Your task to perform on an android device: turn on showing notifications on the lock screen Image 0: 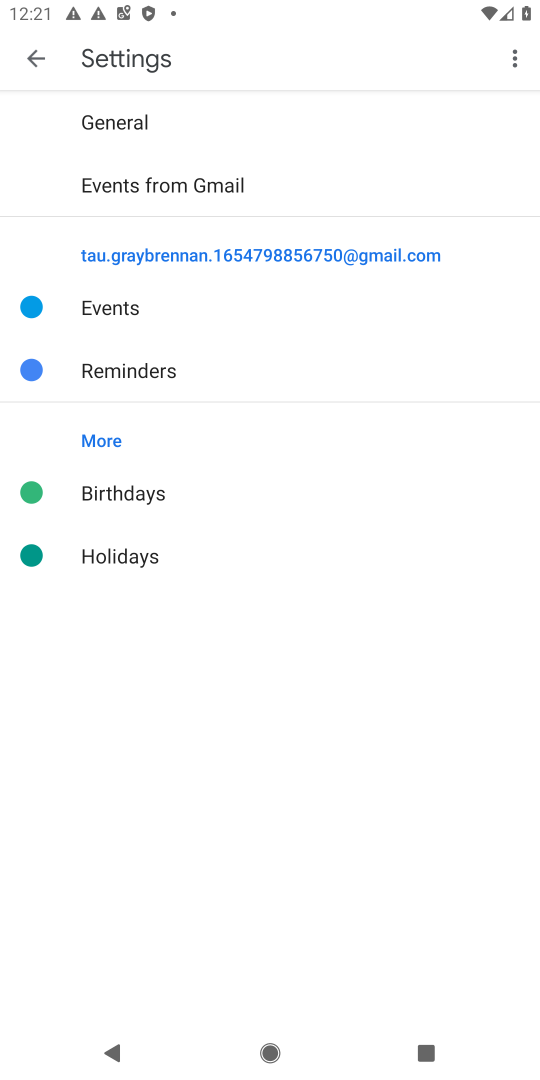
Step 0: press back button
Your task to perform on an android device: turn on showing notifications on the lock screen Image 1: 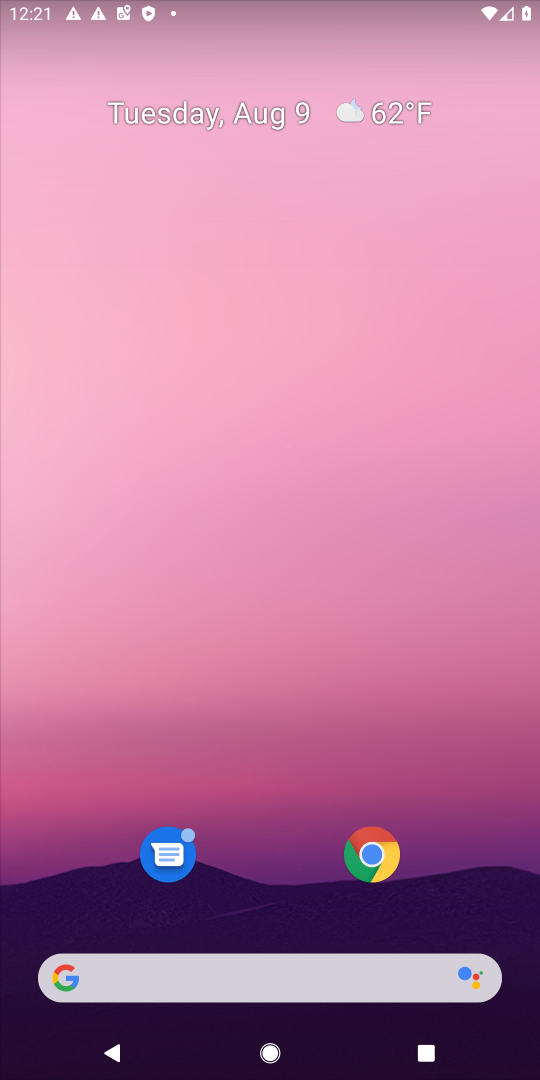
Step 1: drag from (262, 928) to (440, 7)
Your task to perform on an android device: turn on showing notifications on the lock screen Image 2: 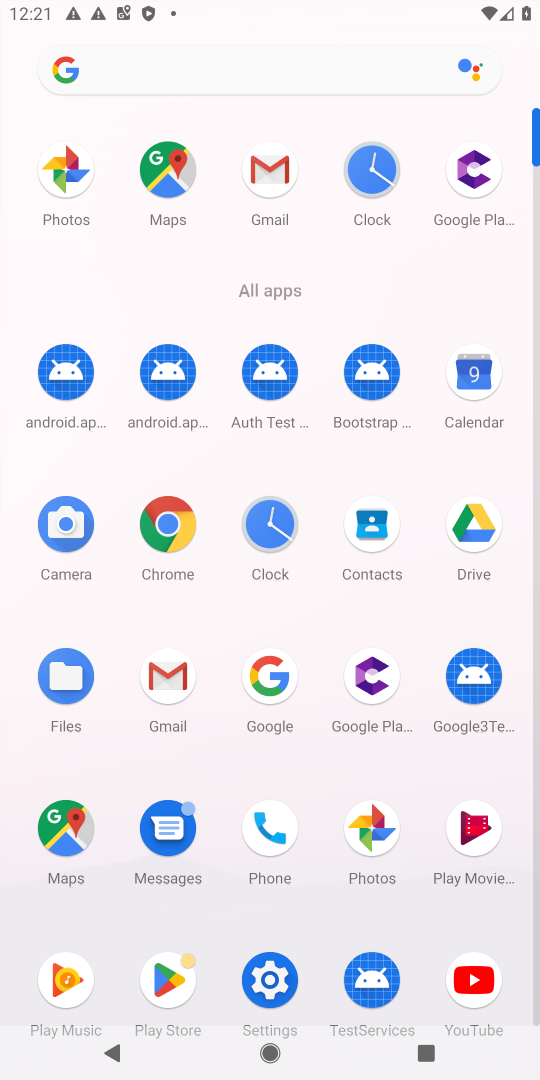
Step 2: click (266, 990)
Your task to perform on an android device: turn on showing notifications on the lock screen Image 3: 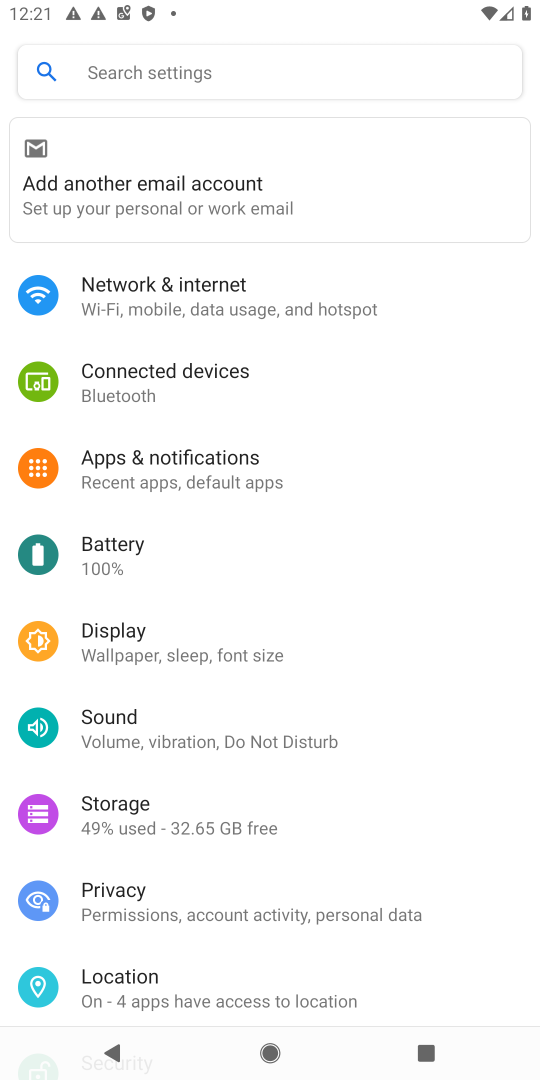
Step 3: click (243, 482)
Your task to perform on an android device: turn on showing notifications on the lock screen Image 4: 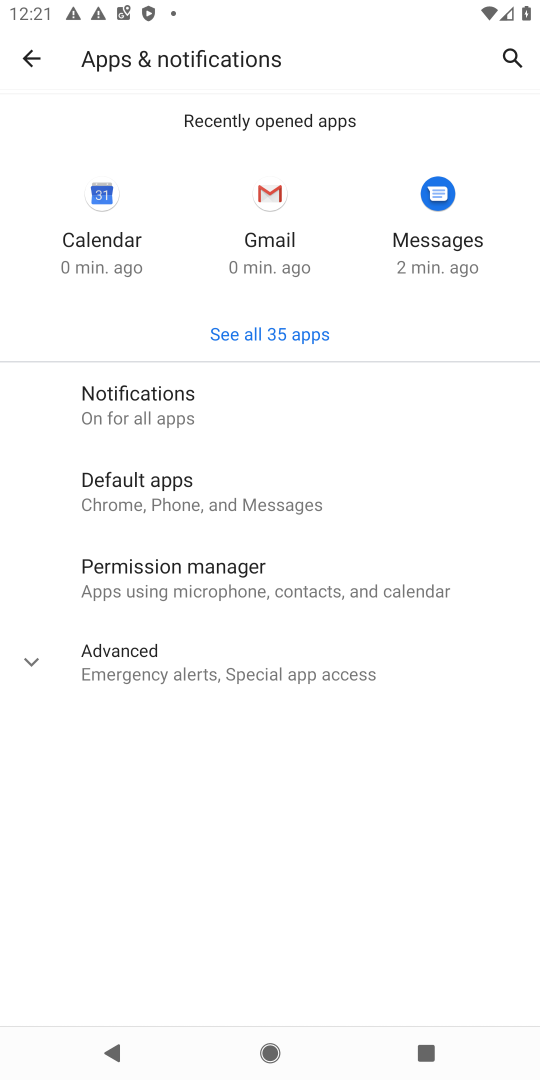
Step 4: click (225, 391)
Your task to perform on an android device: turn on showing notifications on the lock screen Image 5: 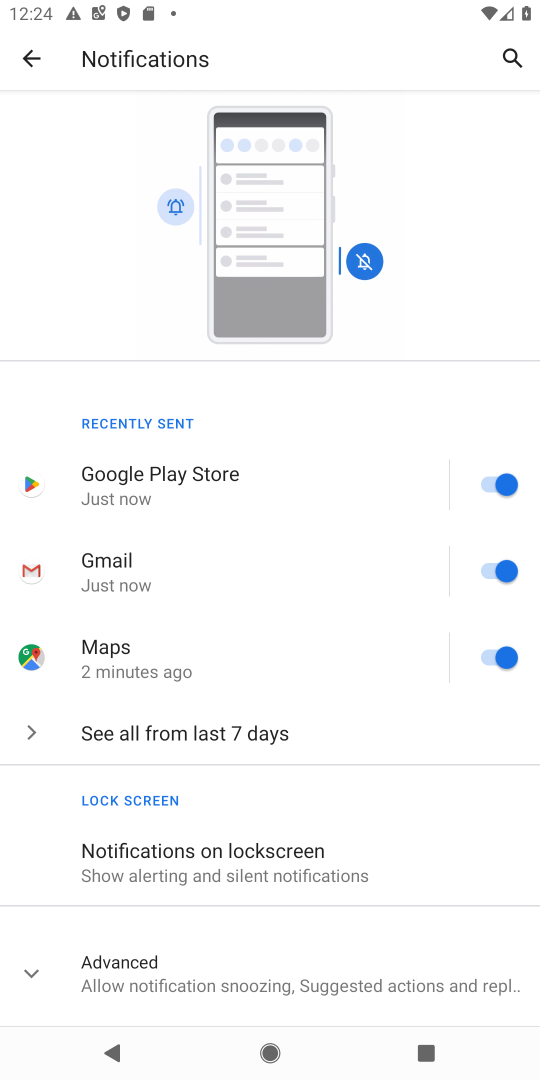
Step 5: click (248, 865)
Your task to perform on an android device: turn on showing notifications on the lock screen Image 6: 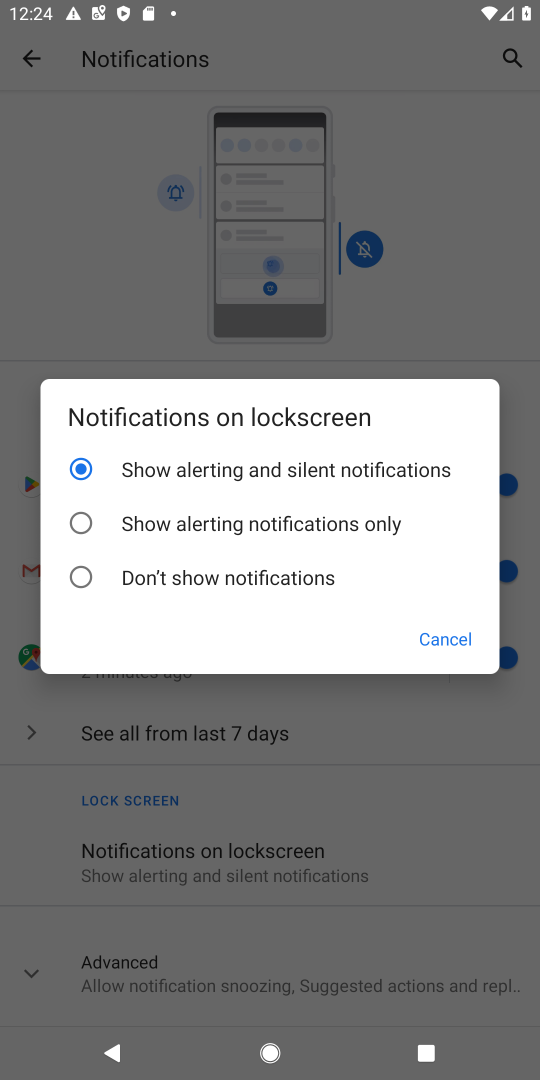
Step 6: task complete